Your task to perform on an android device: Open the web browser Image 0: 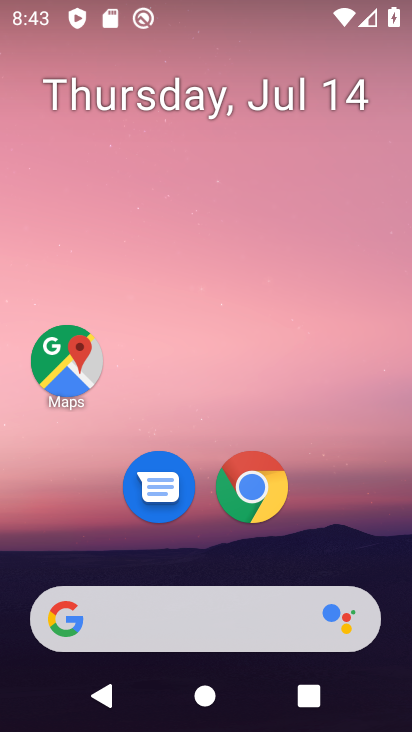
Step 0: click (260, 483)
Your task to perform on an android device: Open the web browser Image 1: 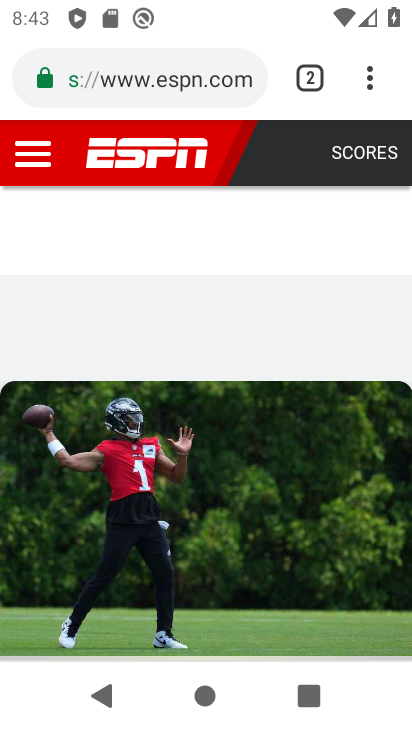
Step 1: task complete